Your task to perform on an android device: search for starred emails in the gmail app Image 0: 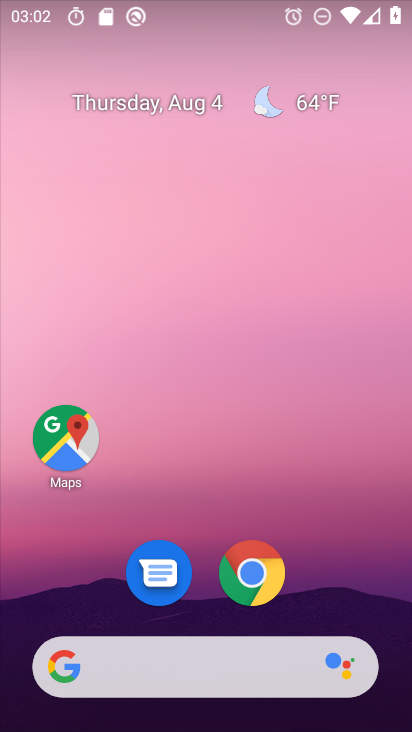
Step 0: drag from (350, 572) to (310, 76)
Your task to perform on an android device: search for starred emails in the gmail app Image 1: 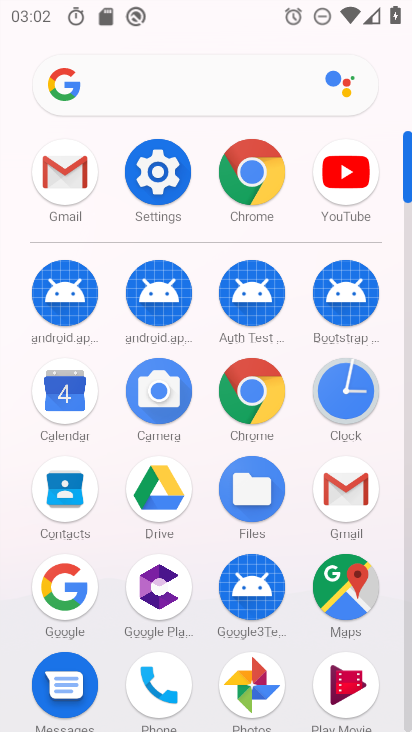
Step 1: click (339, 495)
Your task to perform on an android device: search for starred emails in the gmail app Image 2: 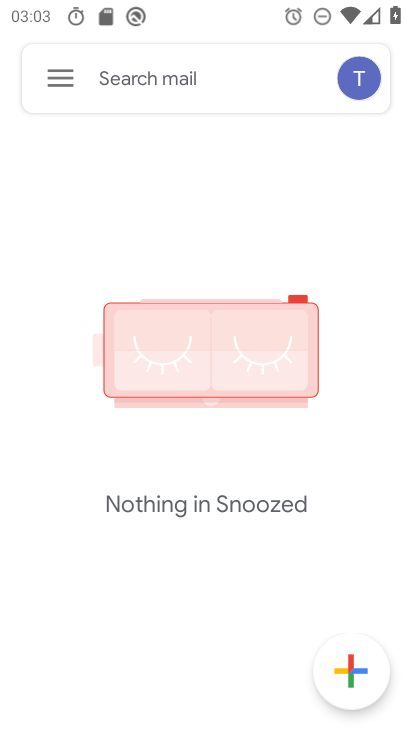
Step 2: click (47, 78)
Your task to perform on an android device: search for starred emails in the gmail app Image 3: 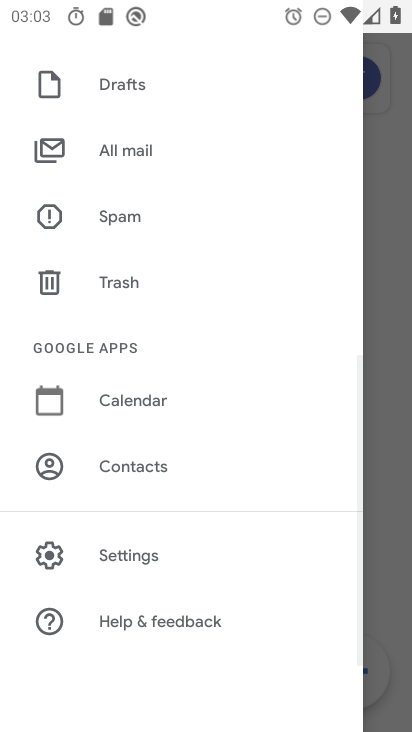
Step 3: drag from (215, 203) to (194, 621)
Your task to perform on an android device: search for starred emails in the gmail app Image 4: 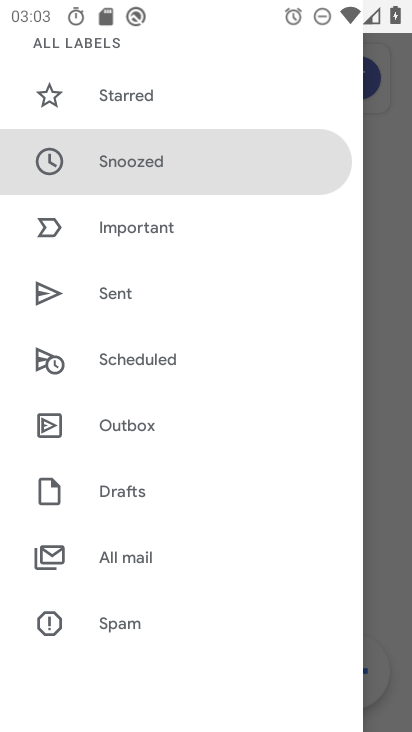
Step 4: click (108, 88)
Your task to perform on an android device: search for starred emails in the gmail app Image 5: 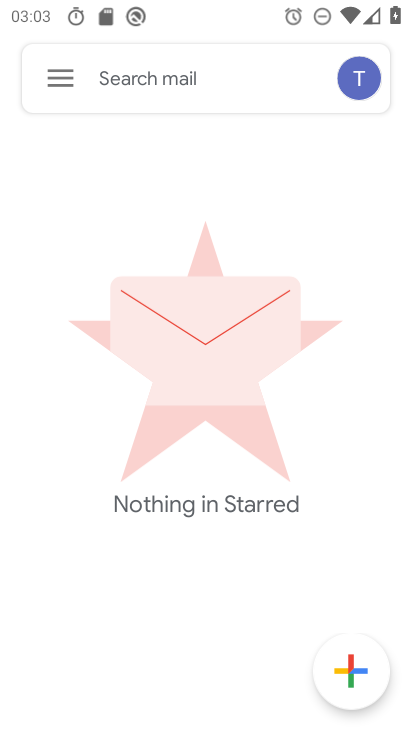
Step 5: task complete